Your task to perform on an android device: Go to sound settings Image 0: 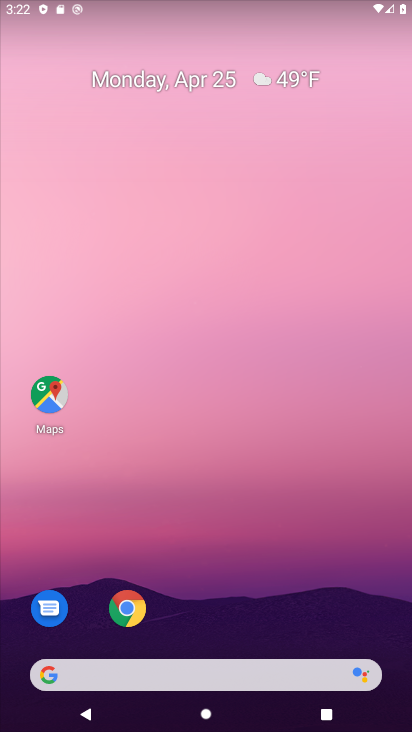
Step 0: drag from (171, 669) to (214, 221)
Your task to perform on an android device: Go to sound settings Image 1: 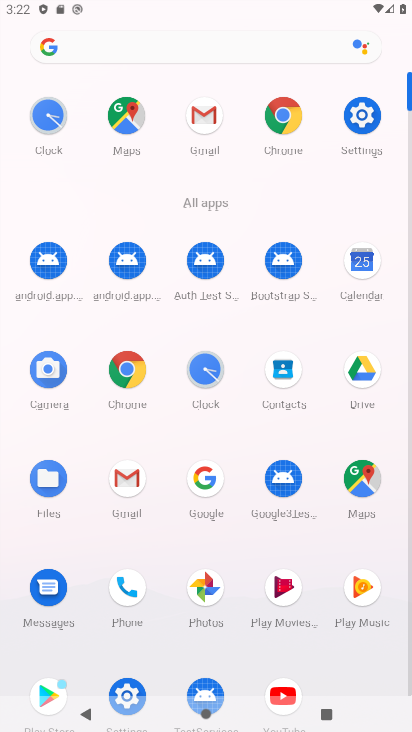
Step 1: click (364, 121)
Your task to perform on an android device: Go to sound settings Image 2: 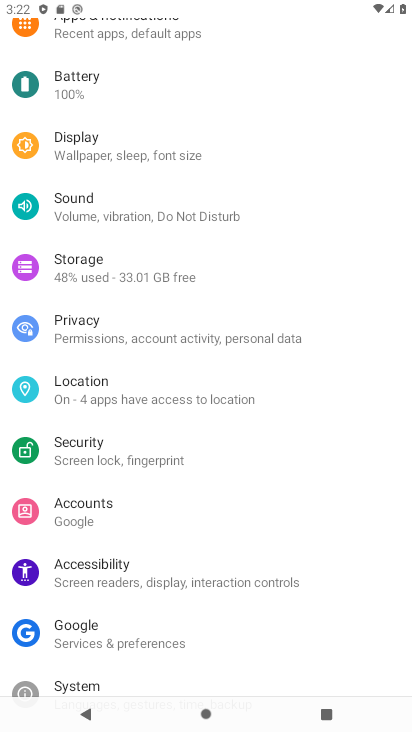
Step 2: click (72, 219)
Your task to perform on an android device: Go to sound settings Image 3: 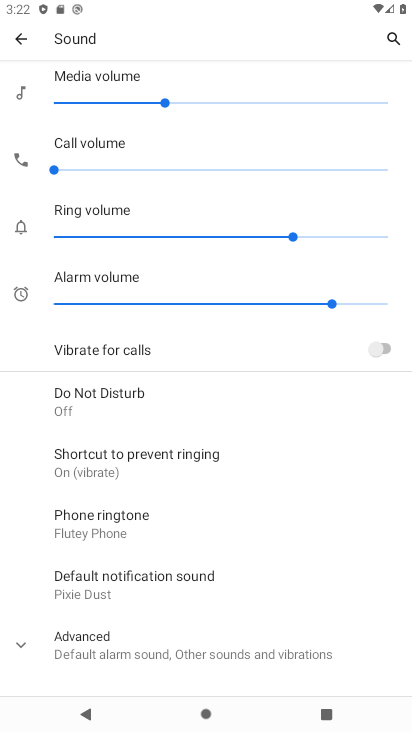
Step 3: task complete